Your task to perform on an android device: Open Reddit.com Image 0: 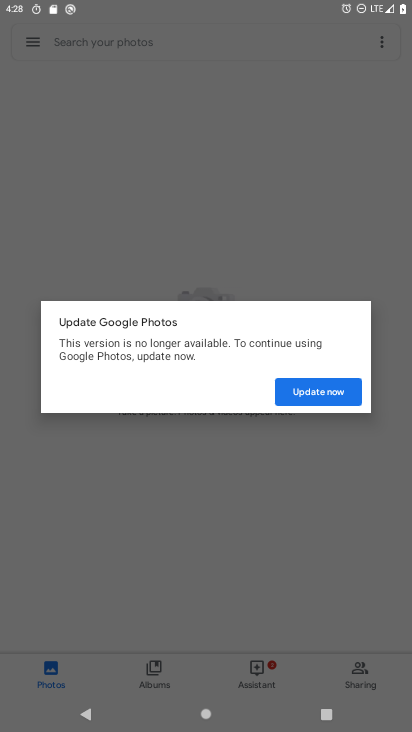
Step 0: press home button
Your task to perform on an android device: Open Reddit.com Image 1: 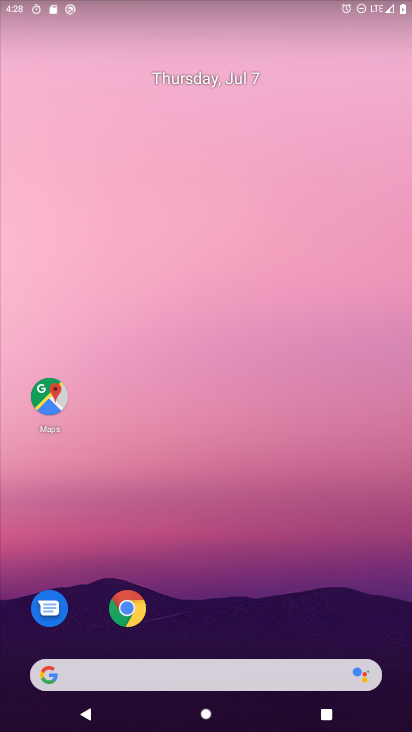
Step 1: click (129, 611)
Your task to perform on an android device: Open Reddit.com Image 2: 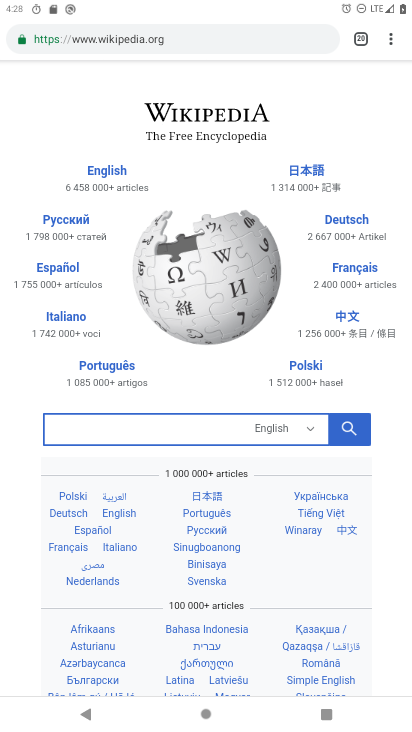
Step 2: press home button
Your task to perform on an android device: Open Reddit.com Image 3: 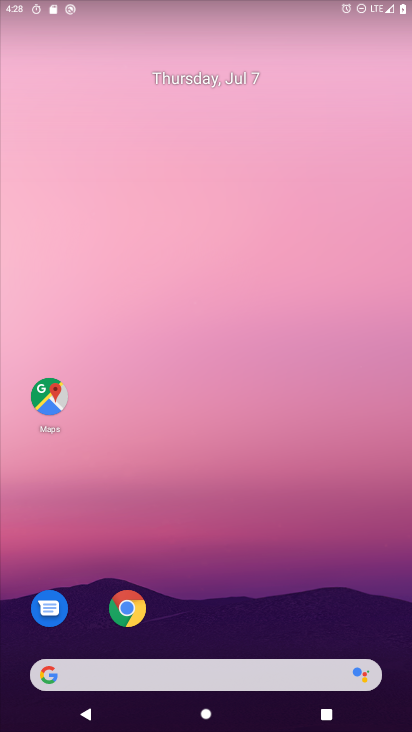
Step 3: drag from (238, 716) to (222, 139)
Your task to perform on an android device: Open Reddit.com Image 4: 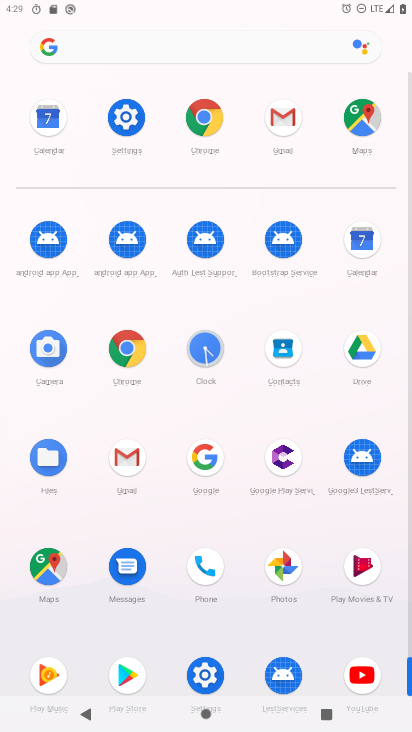
Step 4: click (204, 114)
Your task to perform on an android device: Open Reddit.com Image 5: 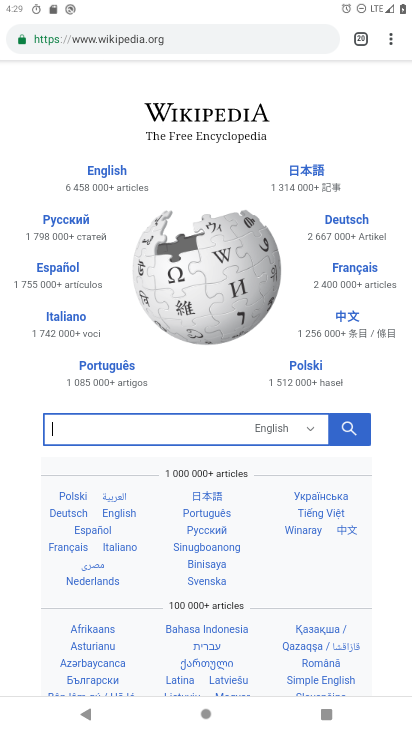
Step 5: click (390, 42)
Your task to perform on an android device: Open Reddit.com Image 6: 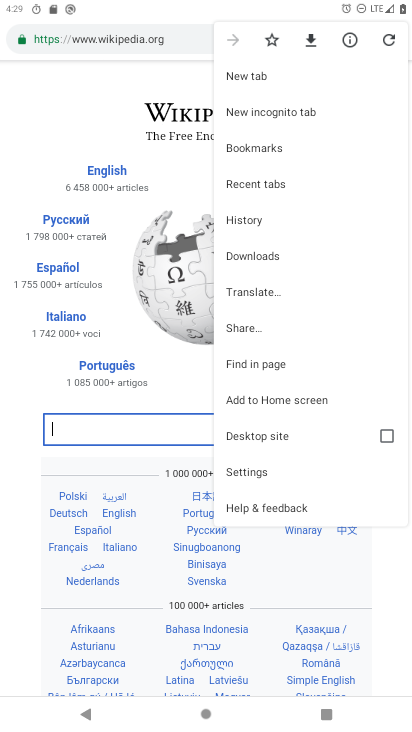
Step 6: click (251, 73)
Your task to perform on an android device: Open Reddit.com Image 7: 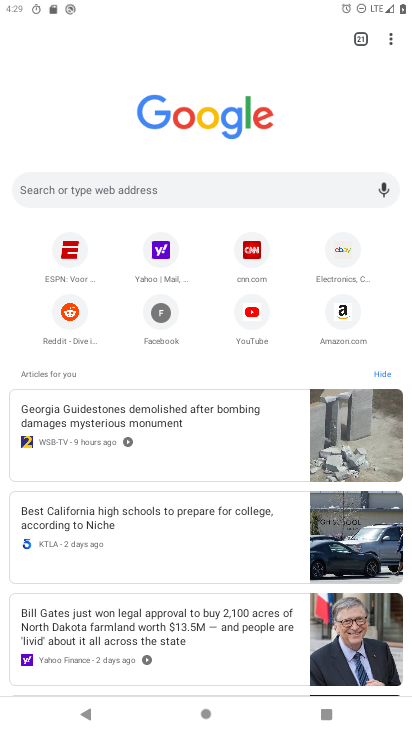
Step 7: click (63, 317)
Your task to perform on an android device: Open Reddit.com Image 8: 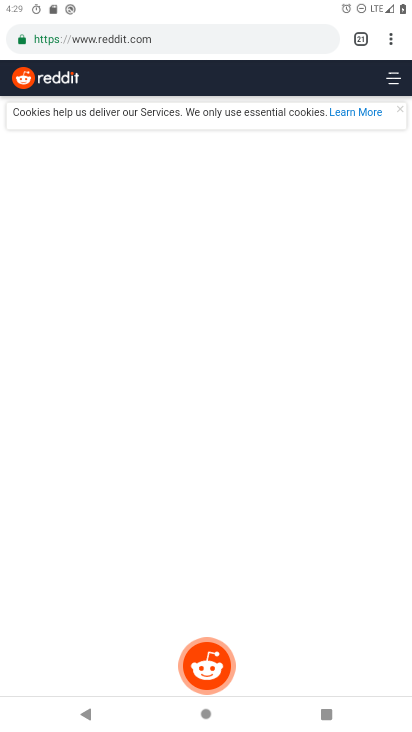
Step 8: task complete